Your task to perform on an android device: What's the weather? Image 0: 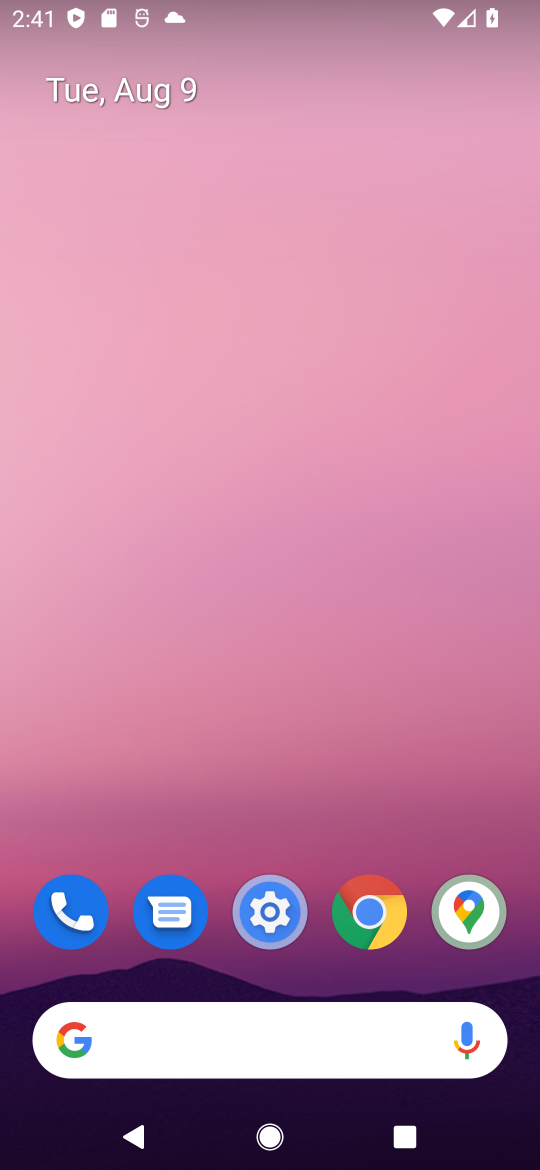
Step 0: drag from (288, 776) to (274, 0)
Your task to perform on an android device: What's the weather? Image 1: 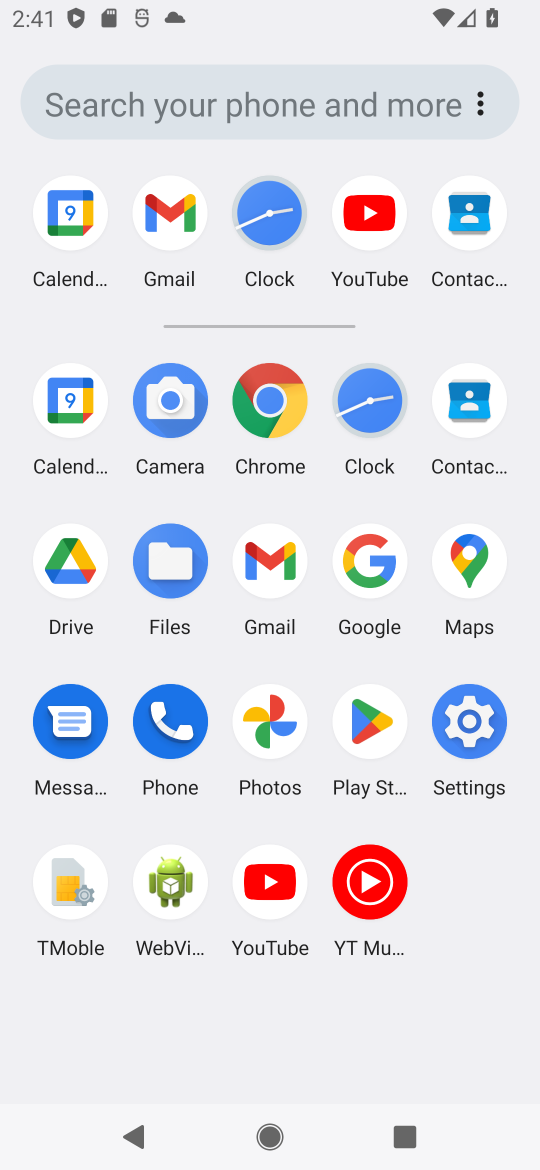
Step 1: click (363, 558)
Your task to perform on an android device: What's the weather? Image 2: 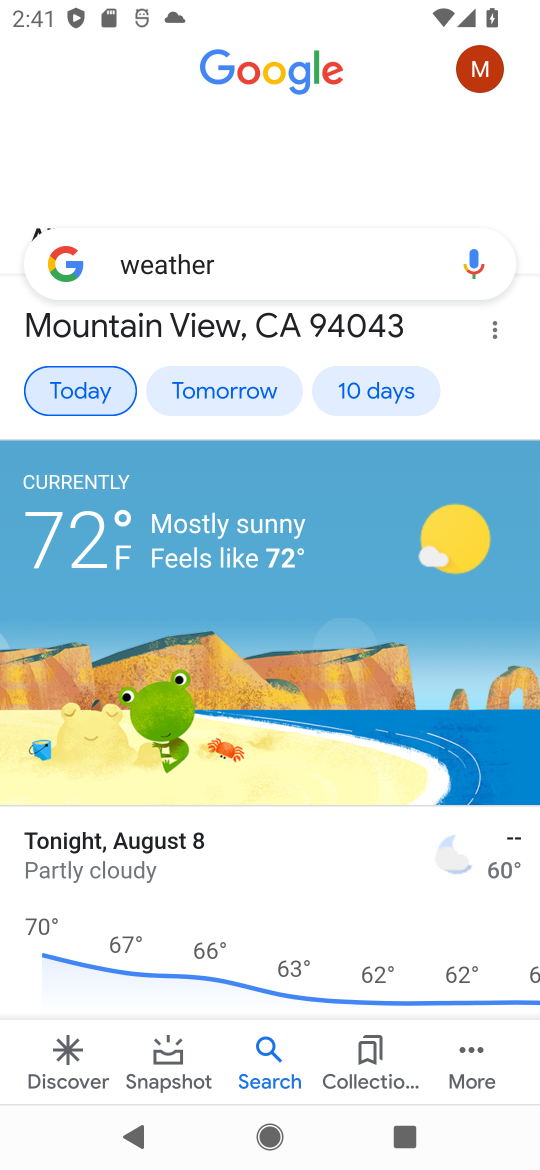
Step 2: task complete